Your task to perform on an android device: Find coffee shops on Maps Image 0: 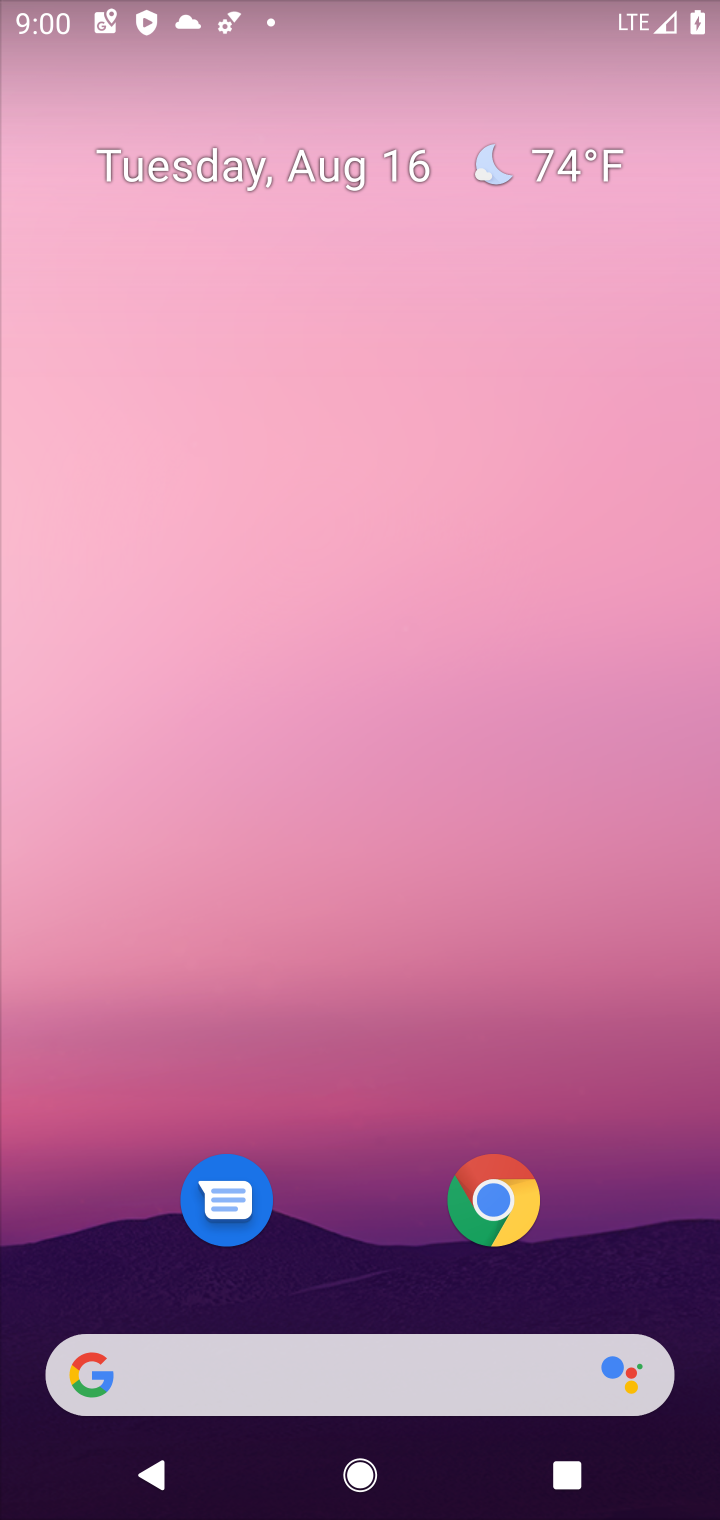
Step 0: drag from (657, 1278) to (629, 226)
Your task to perform on an android device: Find coffee shops on Maps Image 1: 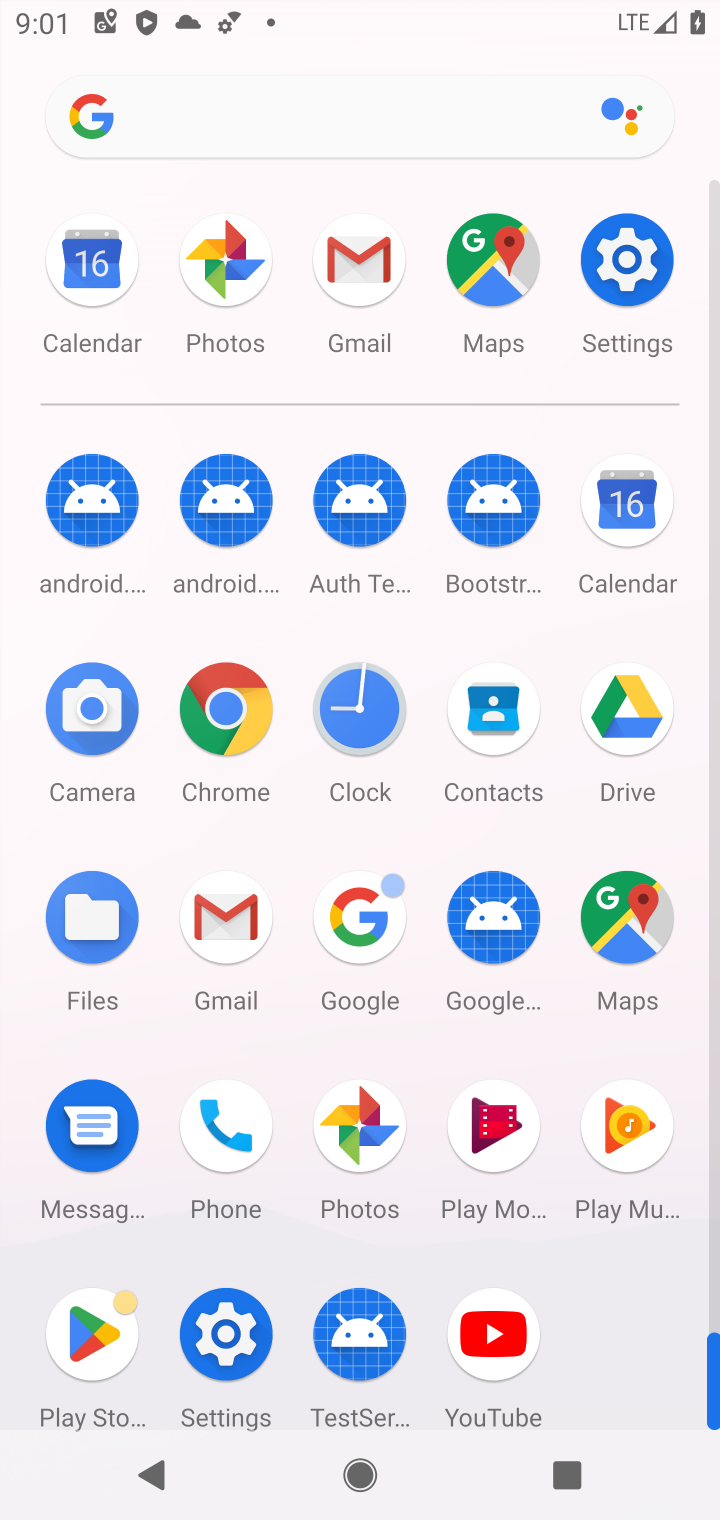
Step 1: click (628, 927)
Your task to perform on an android device: Find coffee shops on Maps Image 2: 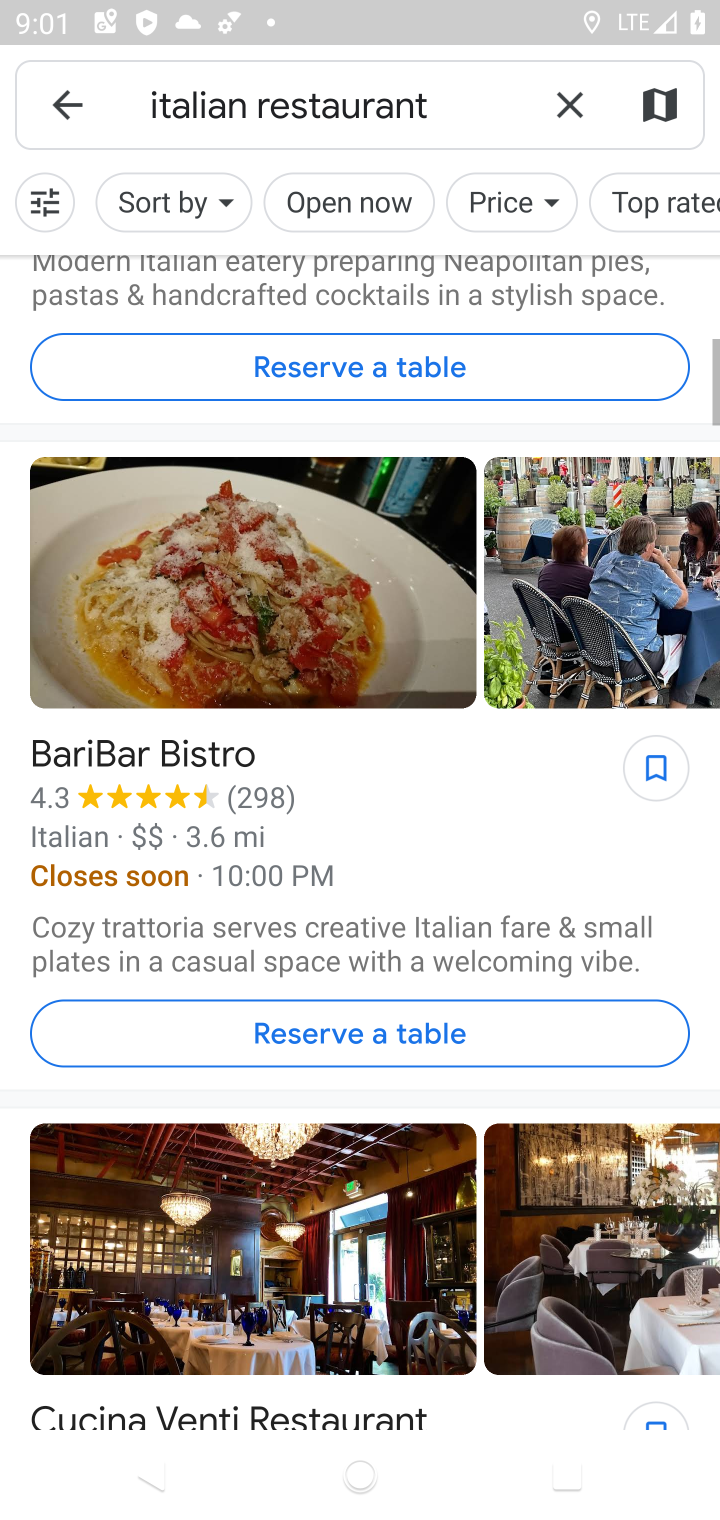
Step 2: click (563, 108)
Your task to perform on an android device: Find coffee shops on Maps Image 3: 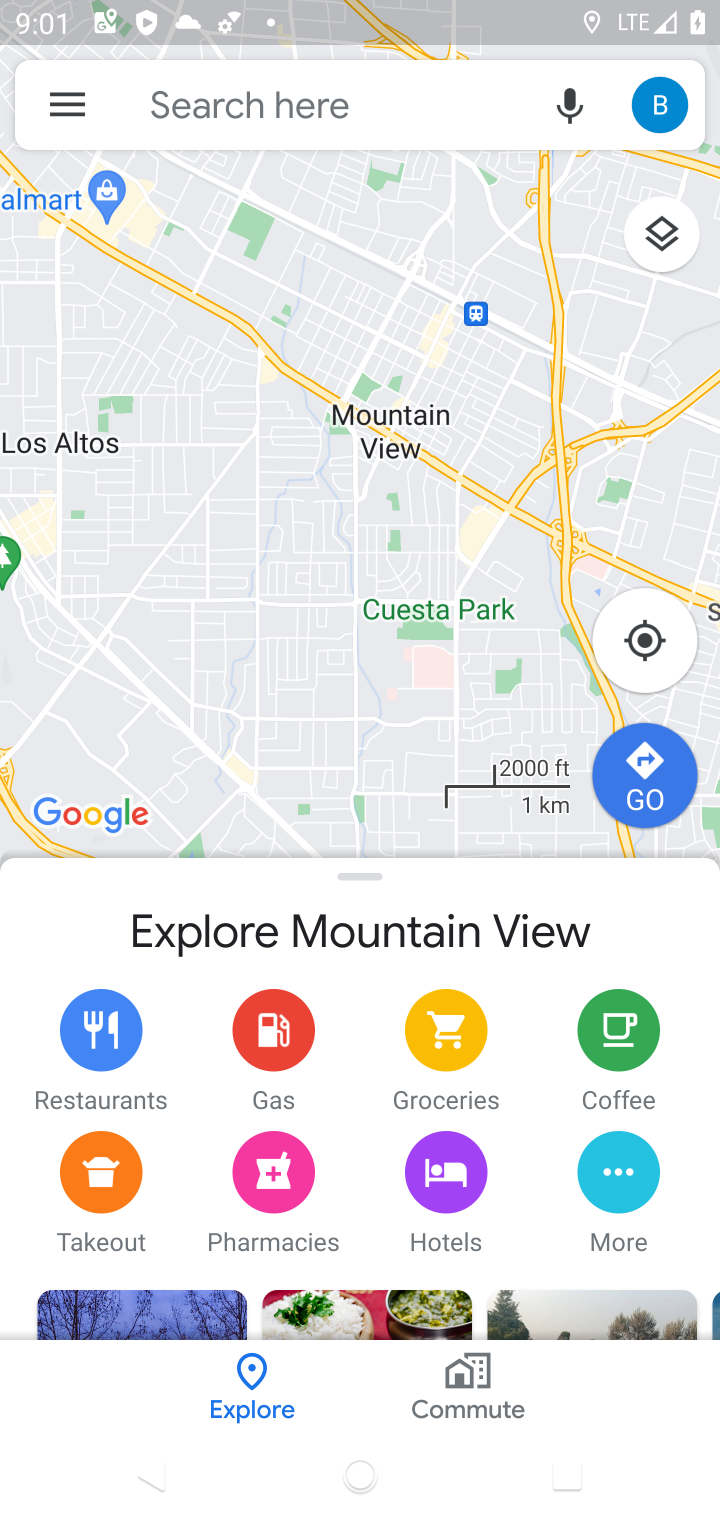
Step 3: click (311, 105)
Your task to perform on an android device: Find coffee shops on Maps Image 4: 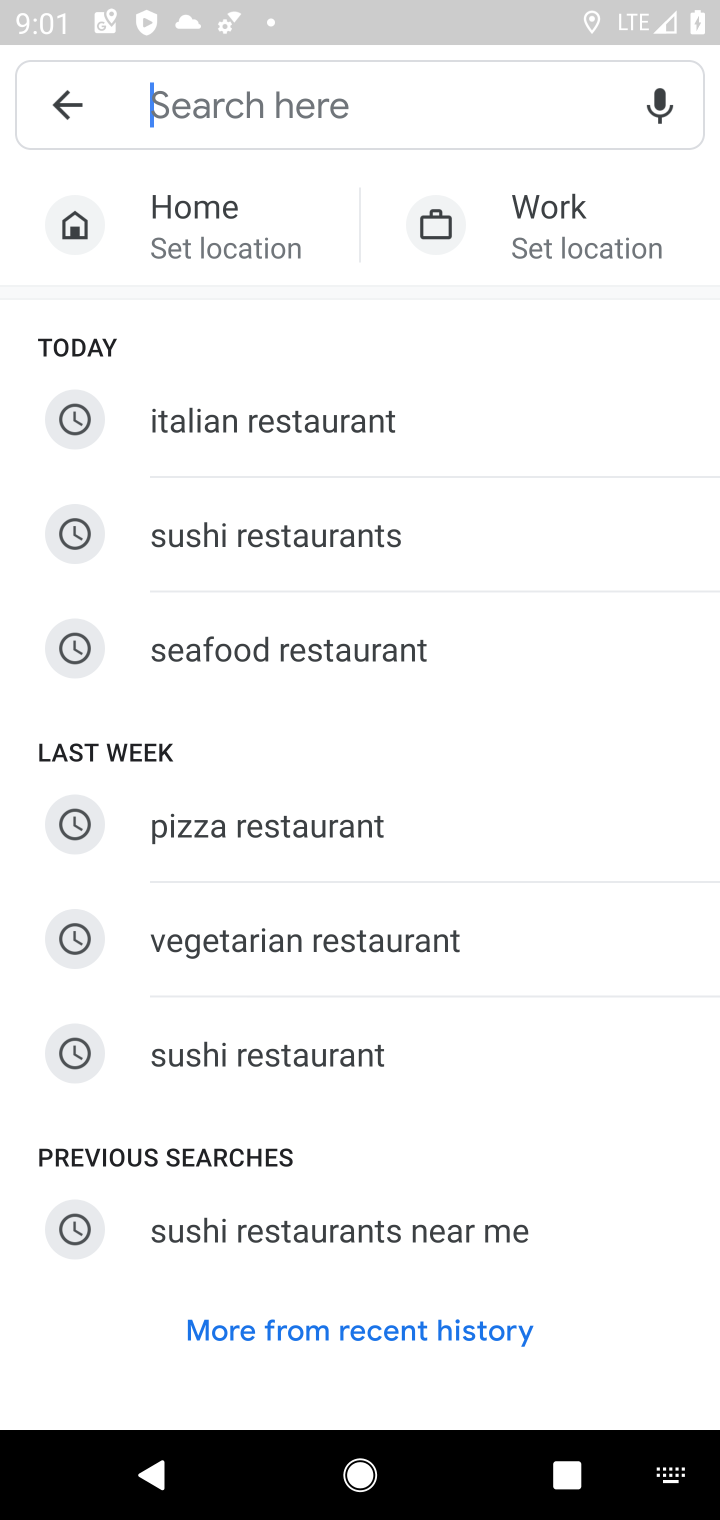
Step 4: type "coffee shops"
Your task to perform on an android device: Find coffee shops on Maps Image 5: 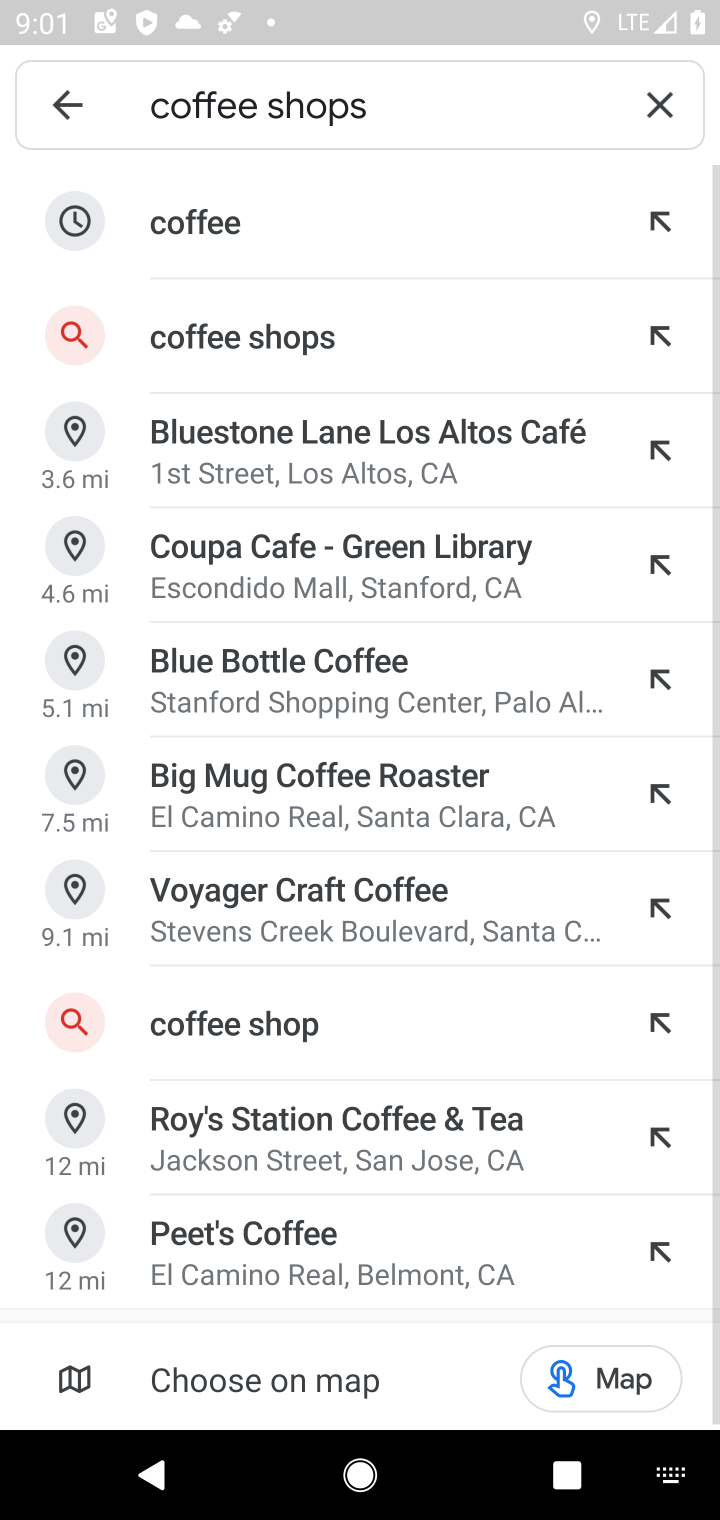
Step 5: click (244, 338)
Your task to perform on an android device: Find coffee shops on Maps Image 6: 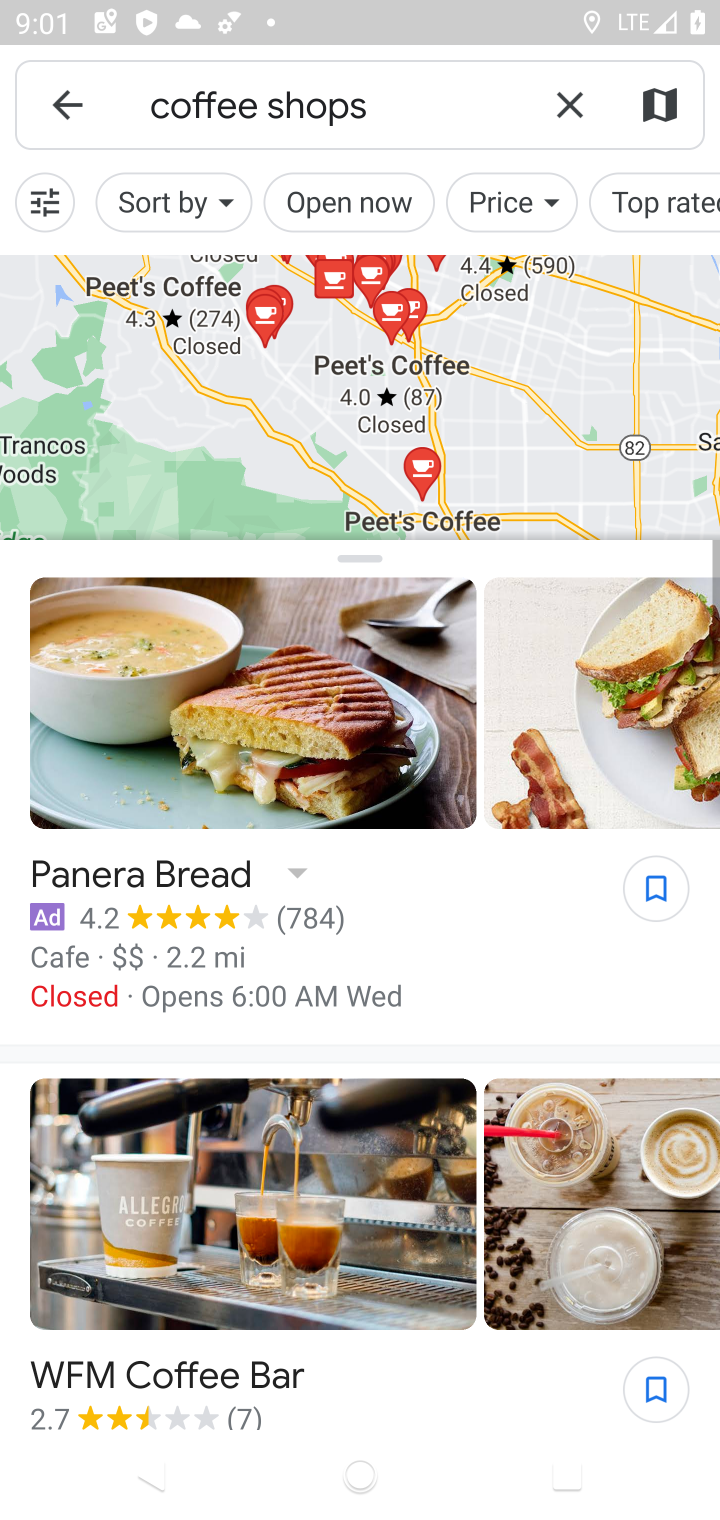
Step 6: task complete